Your task to perform on an android device: Show me popular games on the Play Store Image 0: 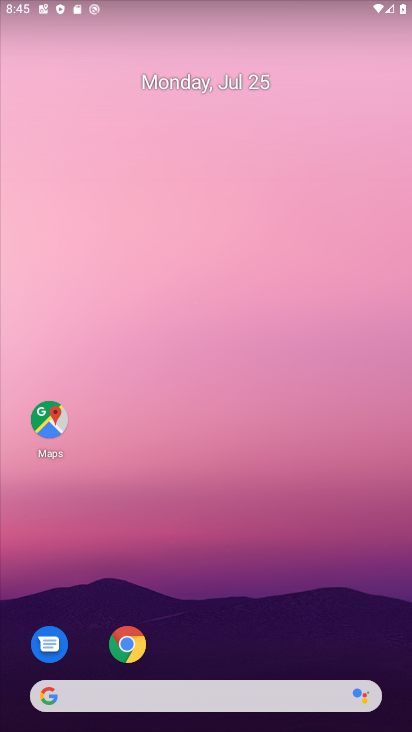
Step 0: drag from (275, 601) to (210, 44)
Your task to perform on an android device: Show me popular games on the Play Store Image 1: 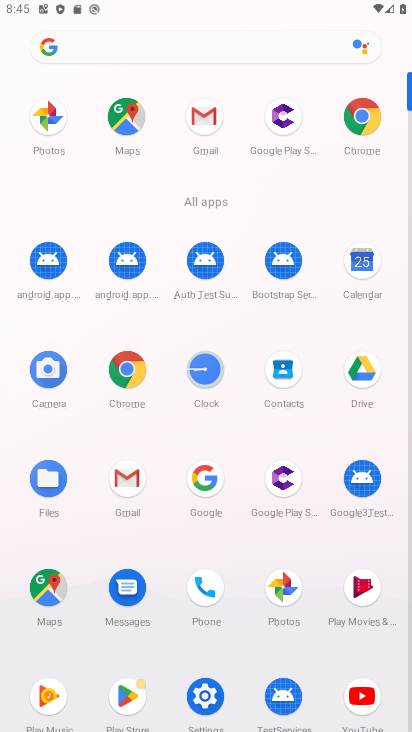
Step 1: click (136, 698)
Your task to perform on an android device: Show me popular games on the Play Store Image 2: 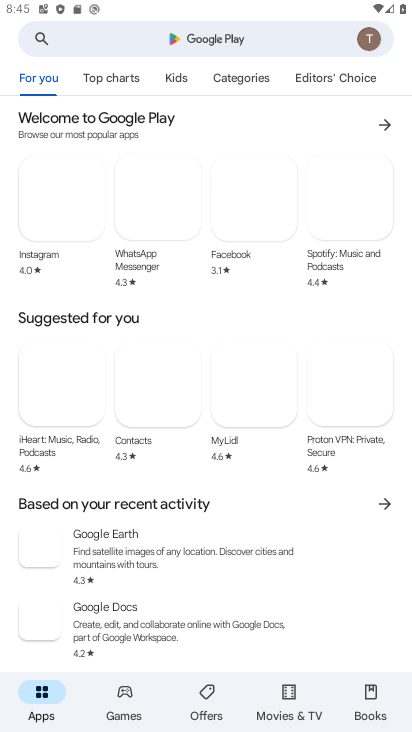
Step 2: click (155, 38)
Your task to perform on an android device: Show me popular games on the Play Store Image 3: 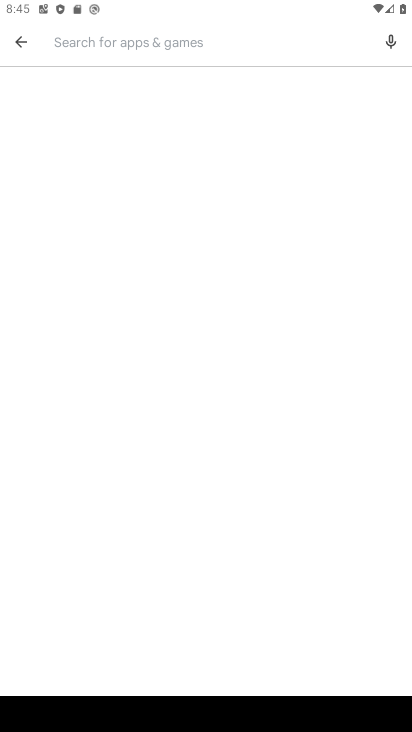
Step 3: type " popular games"
Your task to perform on an android device: Show me popular games on the Play Store Image 4: 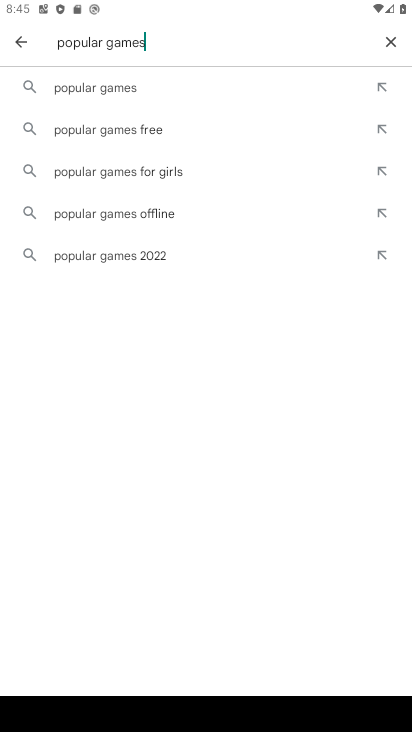
Step 4: click (76, 89)
Your task to perform on an android device: Show me popular games on the Play Store Image 5: 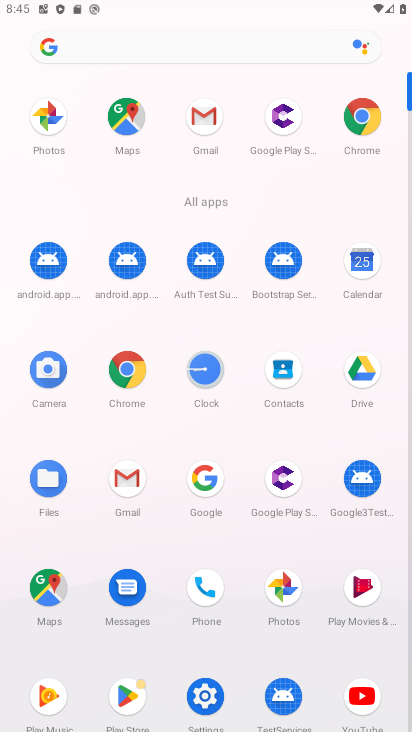
Step 5: task complete